Your task to perform on an android device: see sites visited before in the chrome app Image 0: 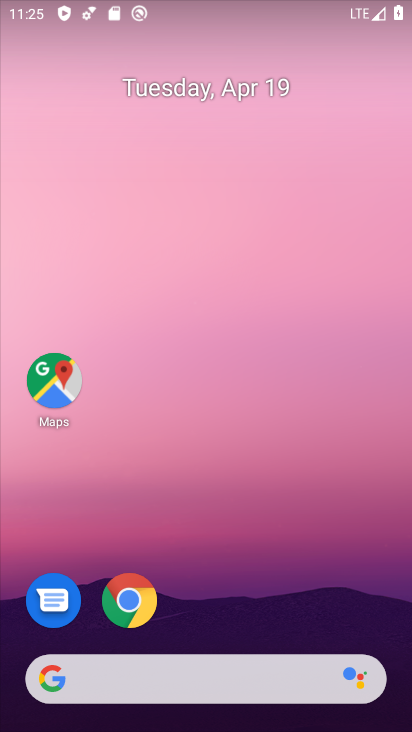
Step 0: click (126, 599)
Your task to perform on an android device: see sites visited before in the chrome app Image 1: 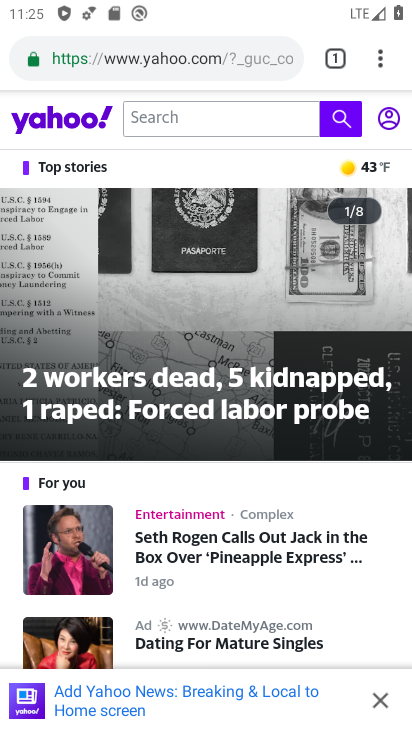
Step 1: click (377, 61)
Your task to perform on an android device: see sites visited before in the chrome app Image 2: 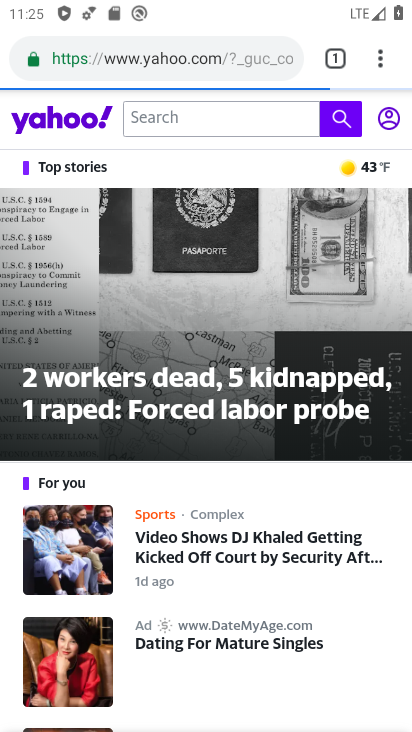
Step 2: click (383, 57)
Your task to perform on an android device: see sites visited before in the chrome app Image 3: 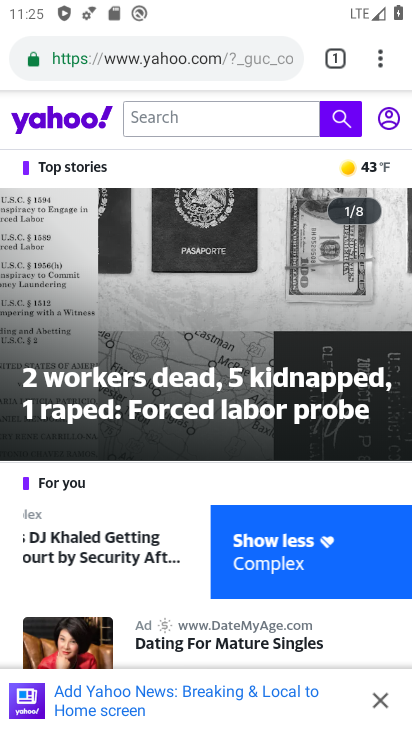
Step 3: click (383, 57)
Your task to perform on an android device: see sites visited before in the chrome app Image 4: 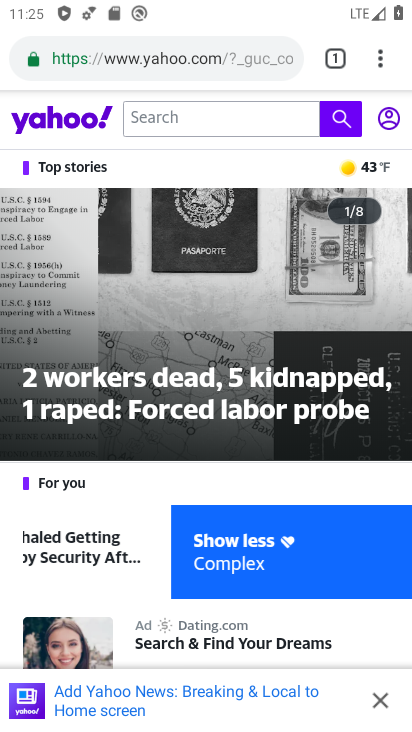
Step 4: click (378, 62)
Your task to perform on an android device: see sites visited before in the chrome app Image 5: 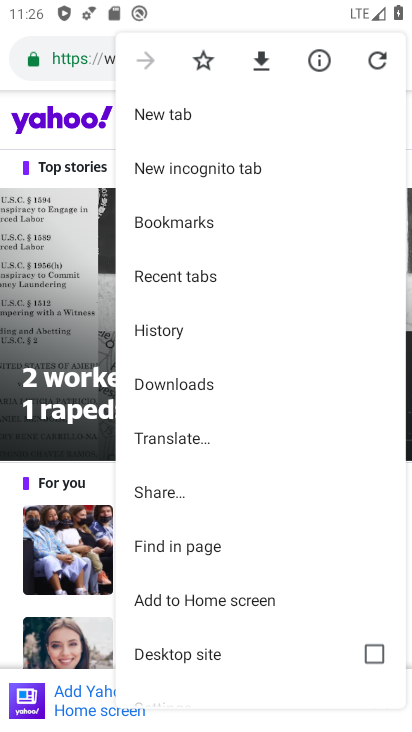
Step 5: click (145, 333)
Your task to perform on an android device: see sites visited before in the chrome app Image 6: 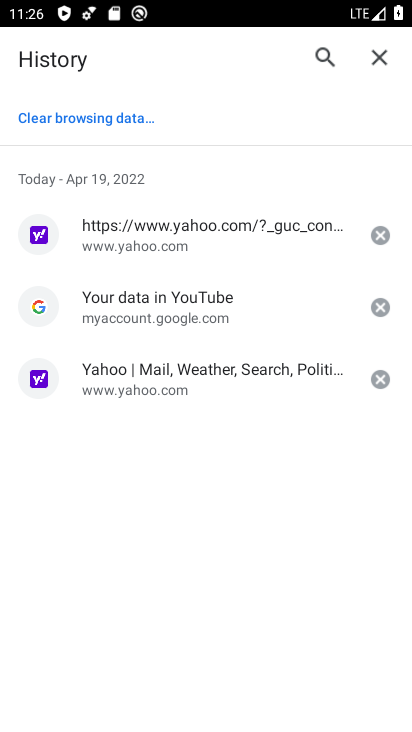
Step 6: task complete